Your task to perform on an android device: turn off wifi Image 0: 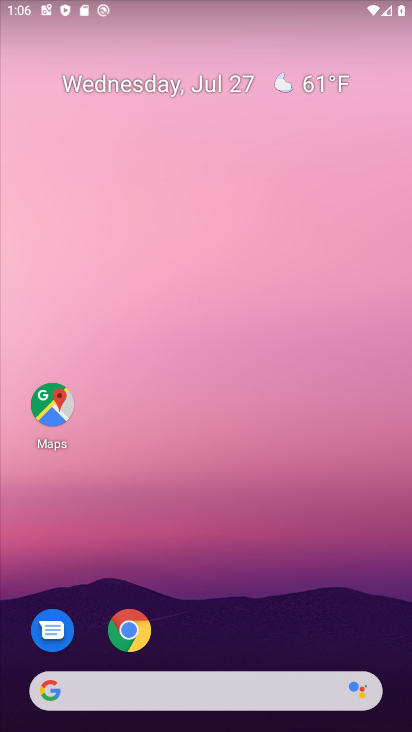
Step 0: drag from (246, 654) to (257, 257)
Your task to perform on an android device: turn off wifi Image 1: 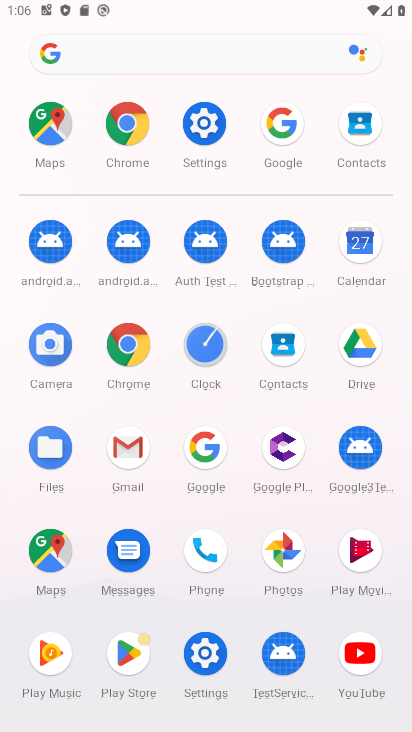
Step 1: click (200, 128)
Your task to perform on an android device: turn off wifi Image 2: 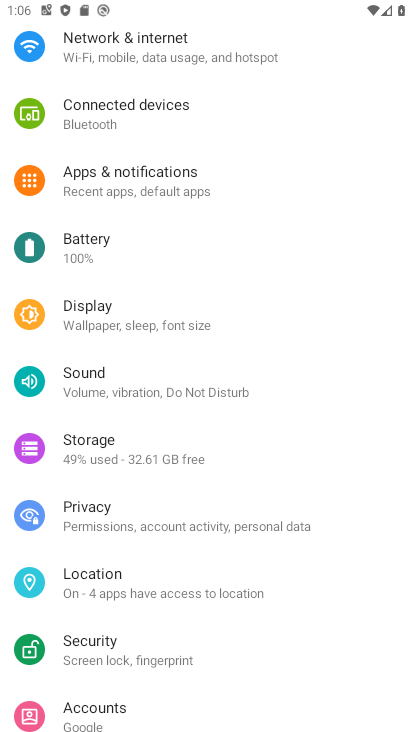
Step 2: click (97, 48)
Your task to perform on an android device: turn off wifi Image 3: 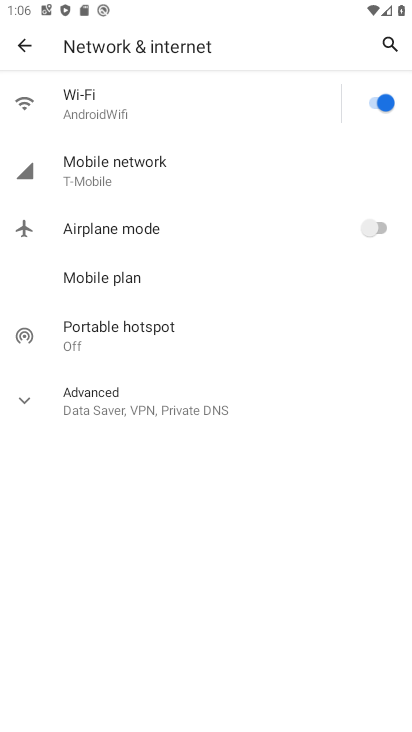
Step 3: click (369, 100)
Your task to perform on an android device: turn off wifi Image 4: 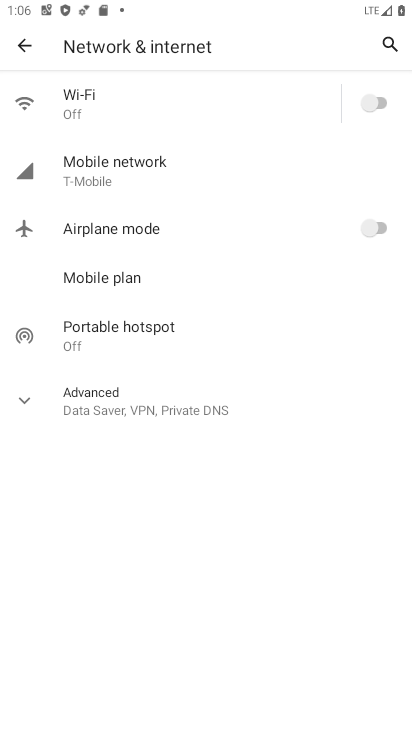
Step 4: task complete